Your task to perform on an android device: change keyboard looks Image 0: 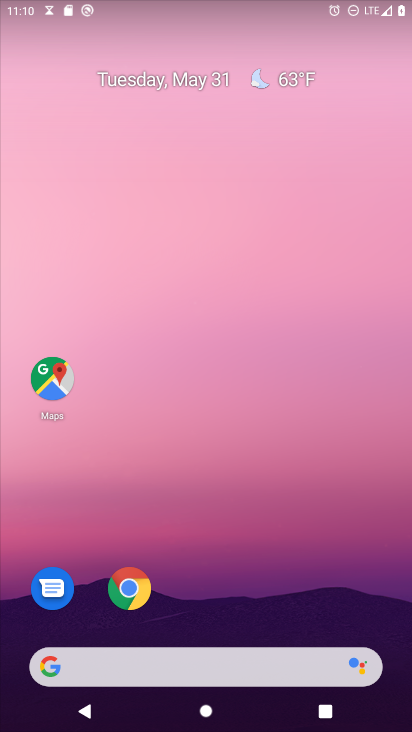
Step 0: drag from (217, 602) to (251, 171)
Your task to perform on an android device: change keyboard looks Image 1: 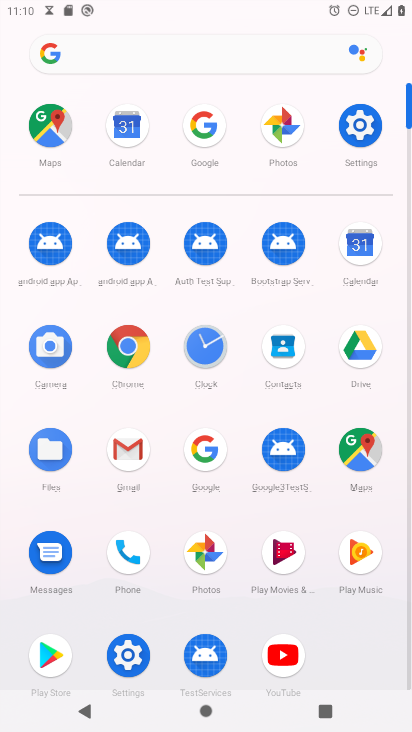
Step 1: click (361, 123)
Your task to perform on an android device: change keyboard looks Image 2: 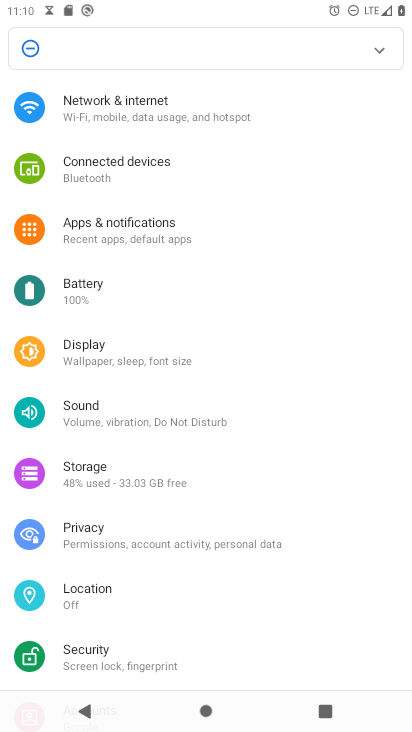
Step 2: drag from (115, 450) to (128, 345)
Your task to perform on an android device: change keyboard looks Image 3: 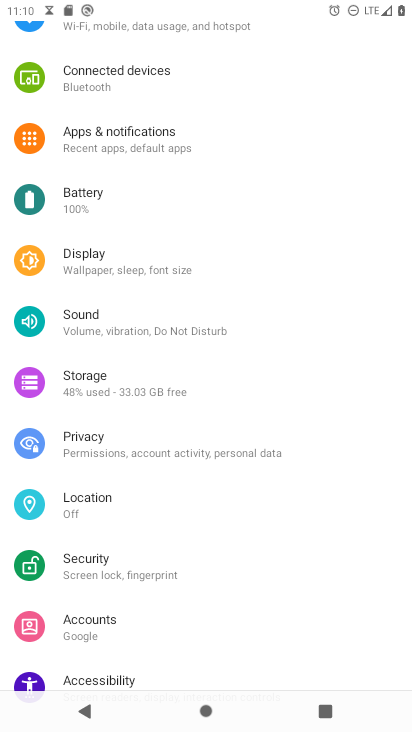
Step 3: drag from (157, 505) to (174, 387)
Your task to perform on an android device: change keyboard looks Image 4: 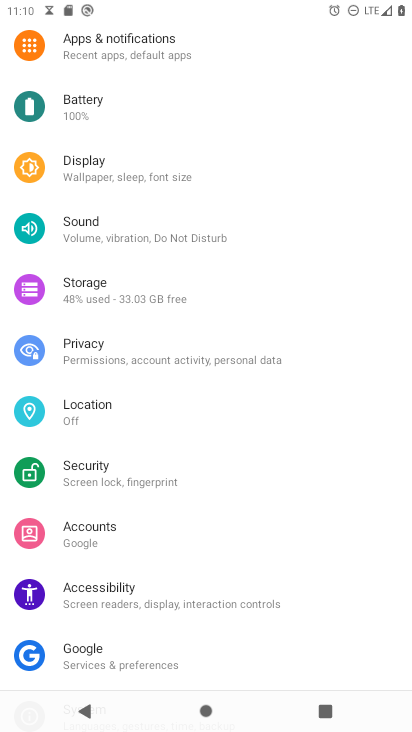
Step 4: drag from (161, 534) to (158, 408)
Your task to perform on an android device: change keyboard looks Image 5: 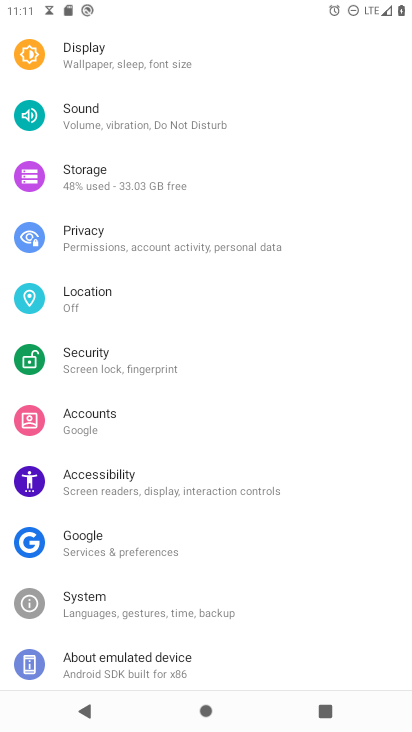
Step 5: click (153, 606)
Your task to perform on an android device: change keyboard looks Image 6: 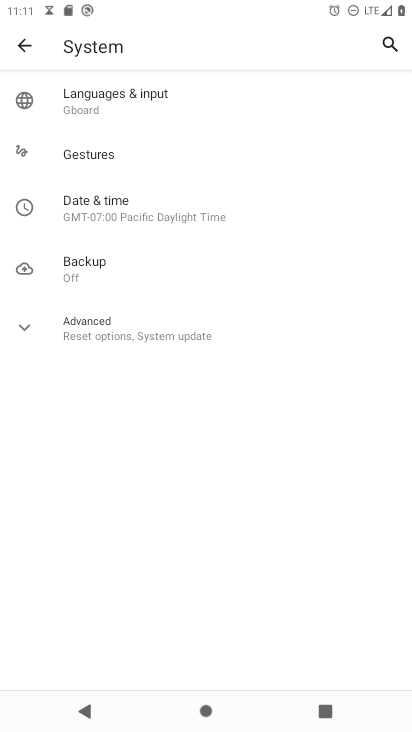
Step 6: click (126, 108)
Your task to perform on an android device: change keyboard looks Image 7: 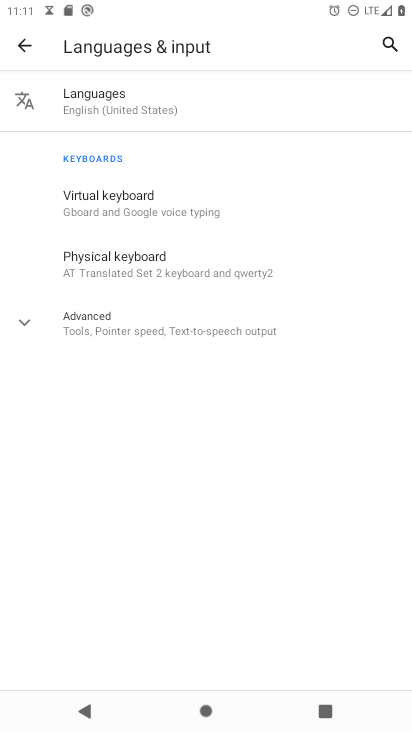
Step 7: click (130, 212)
Your task to perform on an android device: change keyboard looks Image 8: 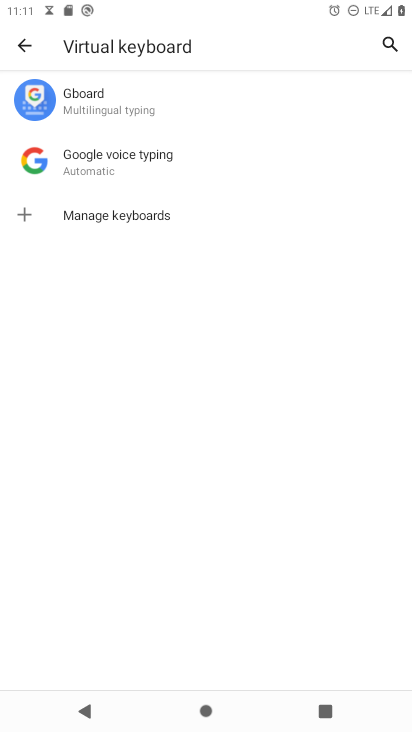
Step 8: click (120, 106)
Your task to perform on an android device: change keyboard looks Image 9: 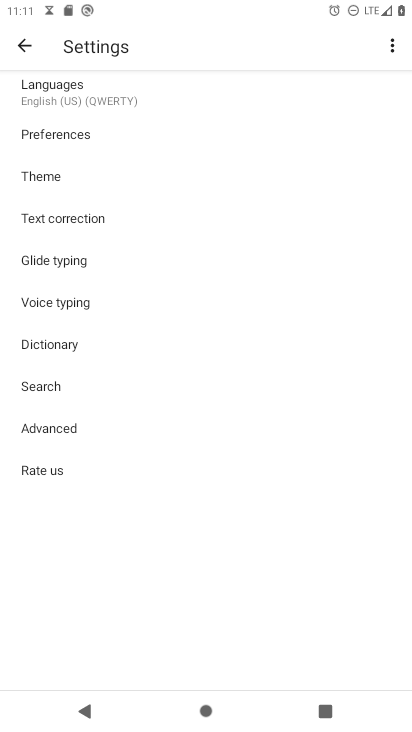
Step 9: click (60, 173)
Your task to perform on an android device: change keyboard looks Image 10: 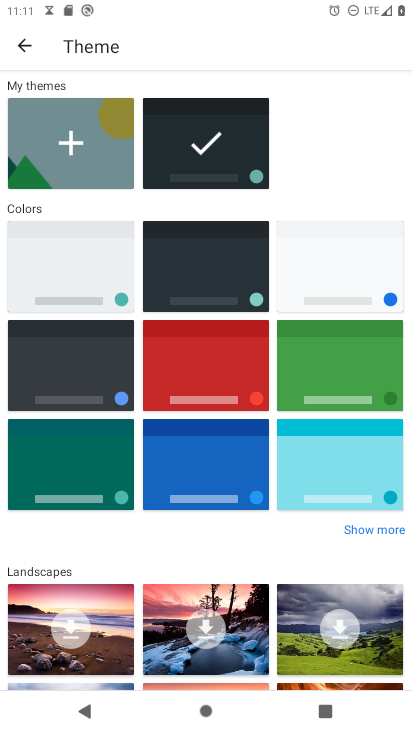
Step 10: click (202, 242)
Your task to perform on an android device: change keyboard looks Image 11: 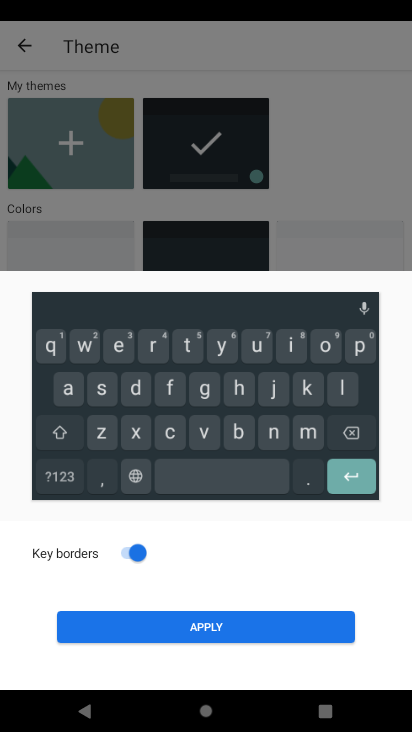
Step 11: click (187, 619)
Your task to perform on an android device: change keyboard looks Image 12: 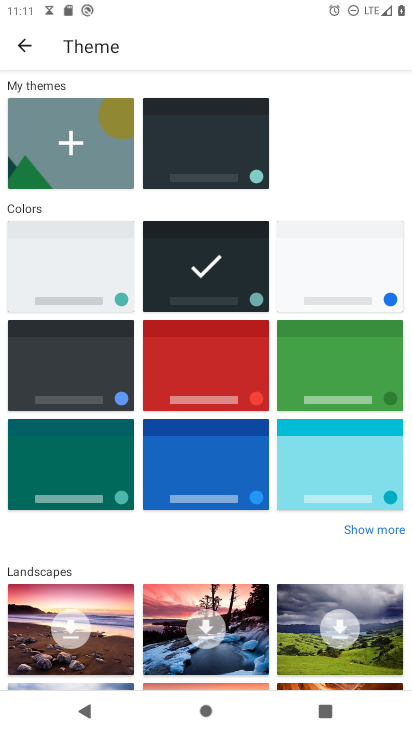
Step 12: task complete